Your task to perform on an android device: Open display settings Image 0: 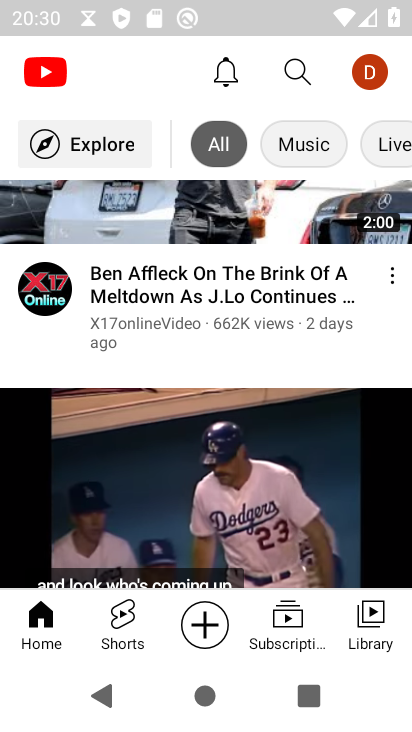
Step 0: press home button
Your task to perform on an android device: Open display settings Image 1: 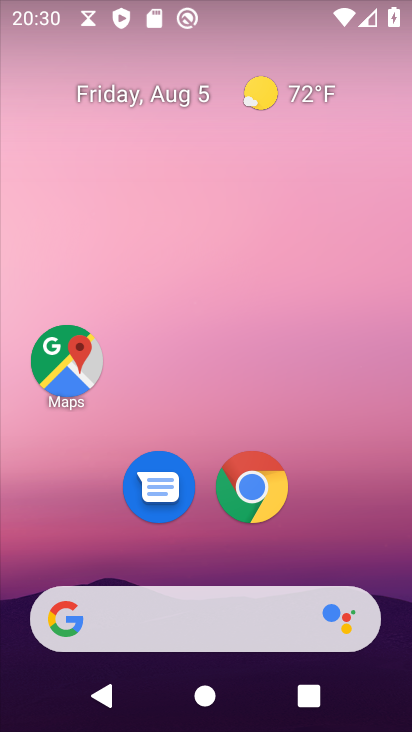
Step 1: drag from (195, 617) to (322, 69)
Your task to perform on an android device: Open display settings Image 2: 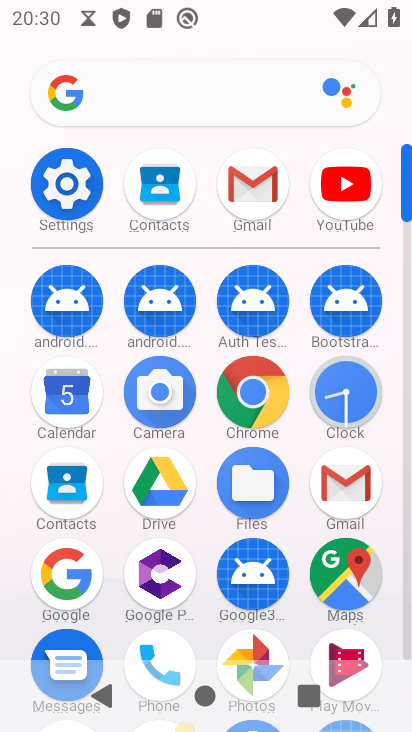
Step 2: click (82, 182)
Your task to perform on an android device: Open display settings Image 3: 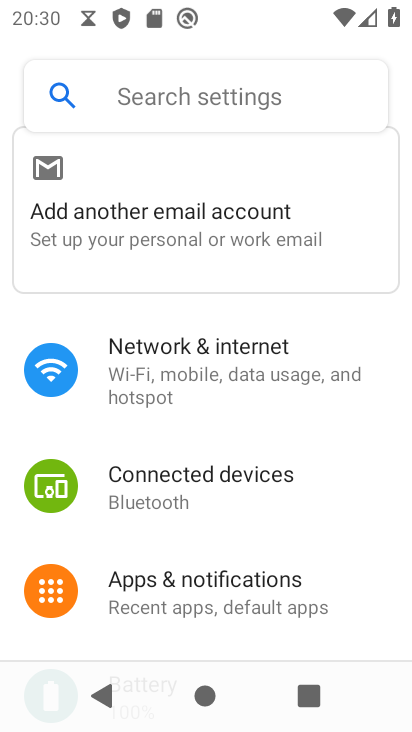
Step 3: drag from (341, 629) to (376, 137)
Your task to perform on an android device: Open display settings Image 4: 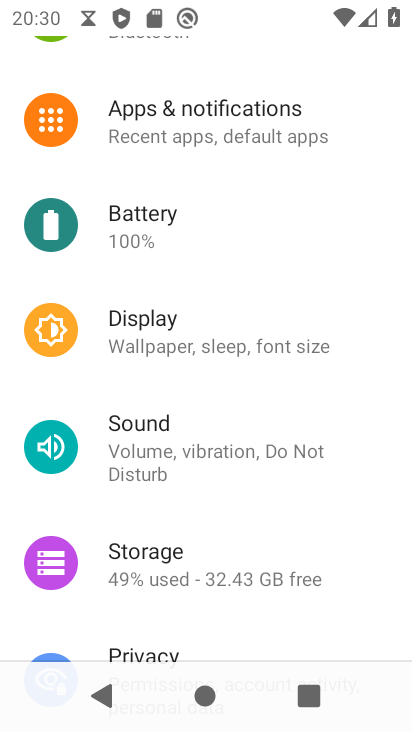
Step 4: click (127, 321)
Your task to perform on an android device: Open display settings Image 5: 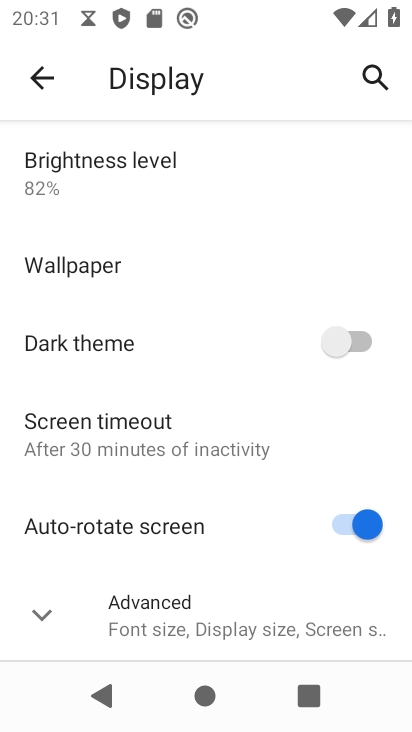
Step 5: task complete